Your task to perform on an android device: move an email to a new category in the gmail app Image 0: 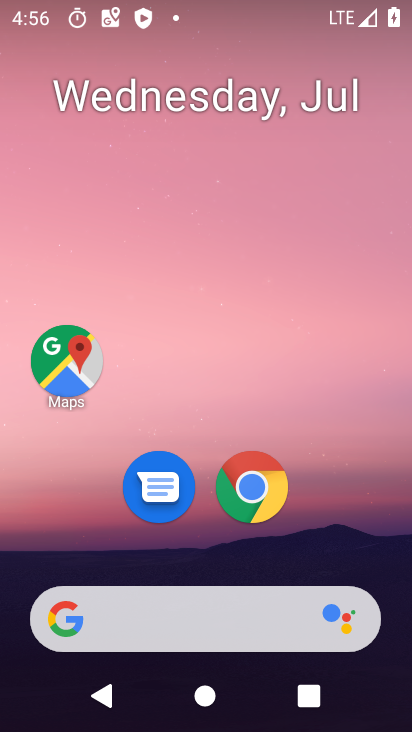
Step 0: drag from (159, 571) to (231, 0)
Your task to perform on an android device: move an email to a new category in the gmail app Image 1: 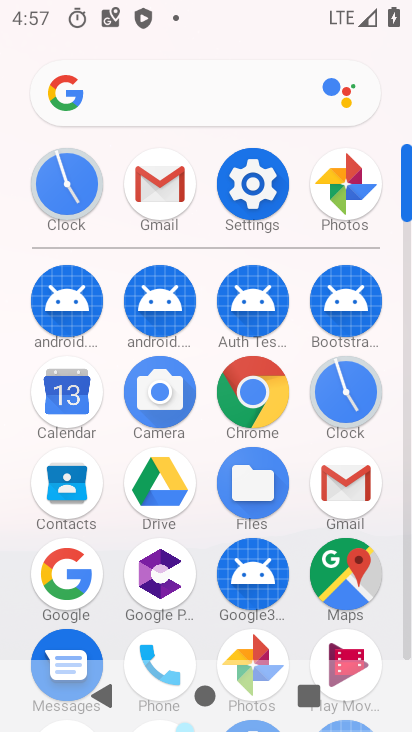
Step 1: click (327, 487)
Your task to perform on an android device: move an email to a new category in the gmail app Image 2: 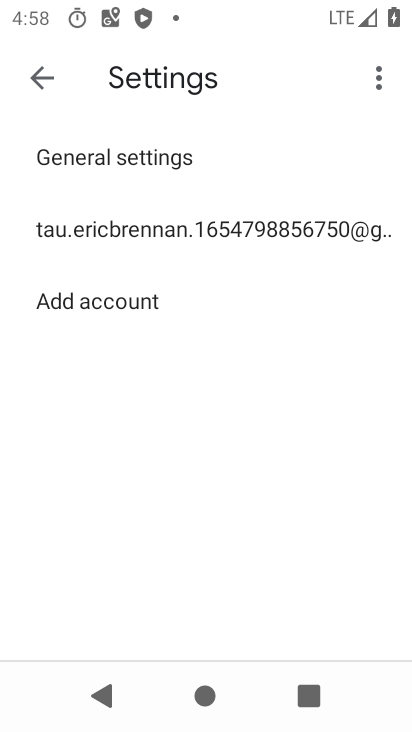
Step 2: click (90, 227)
Your task to perform on an android device: move an email to a new category in the gmail app Image 3: 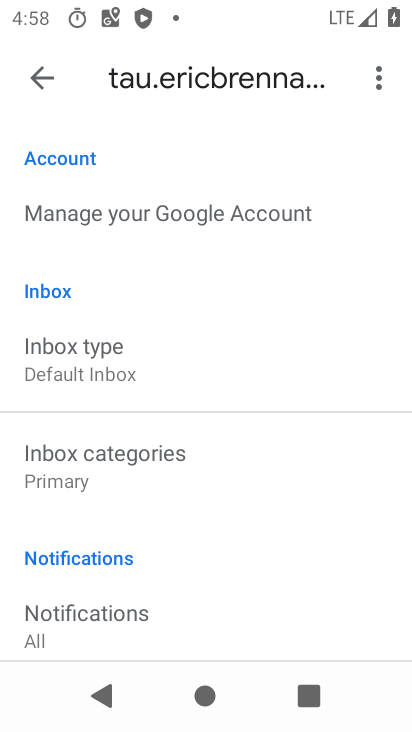
Step 3: click (44, 69)
Your task to perform on an android device: move an email to a new category in the gmail app Image 4: 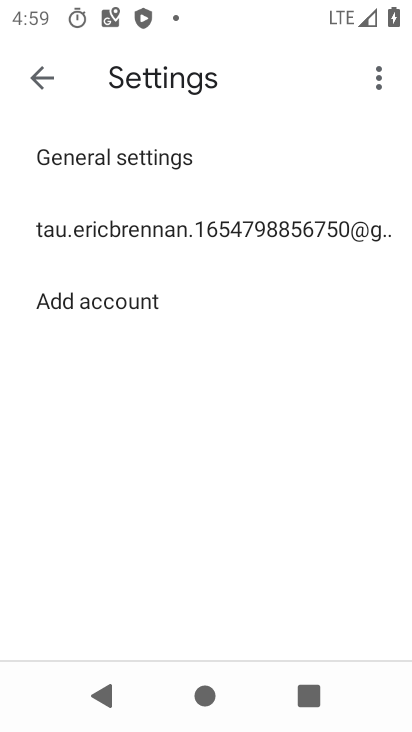
Step 4: click (44, 69)
Your task to perform on an android device: move an email to a new category in the gmail app Image 5: 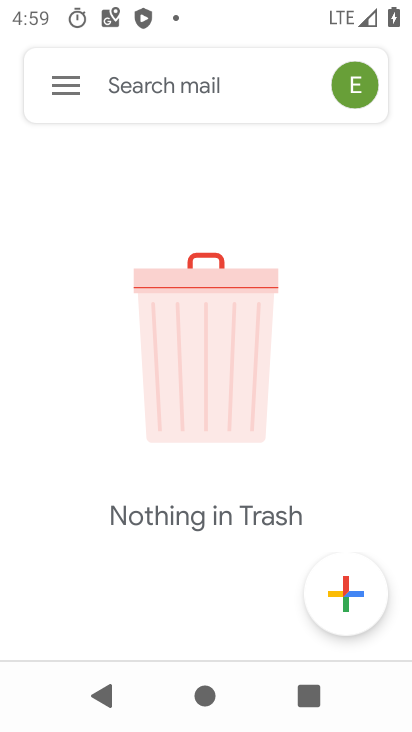
Step 5: click (49, 76)
Your task to perform on an android device: move an email to a new category in the gmail app Image 6: 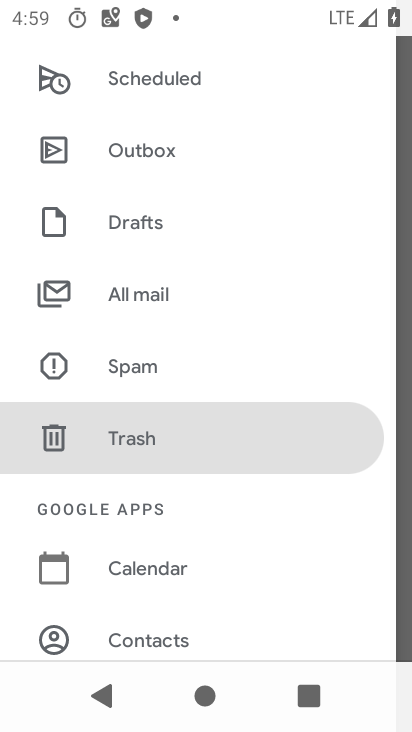
Step 6: click (162, 288)
Your task to perform on an android device: move an email to a new category in the gmail app Image 7: 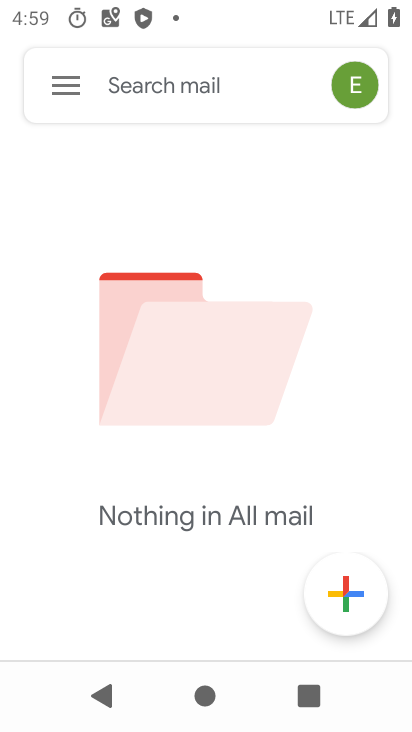
Step 7: task complete